Your task to perform on an android device: Open network settings Image 0: 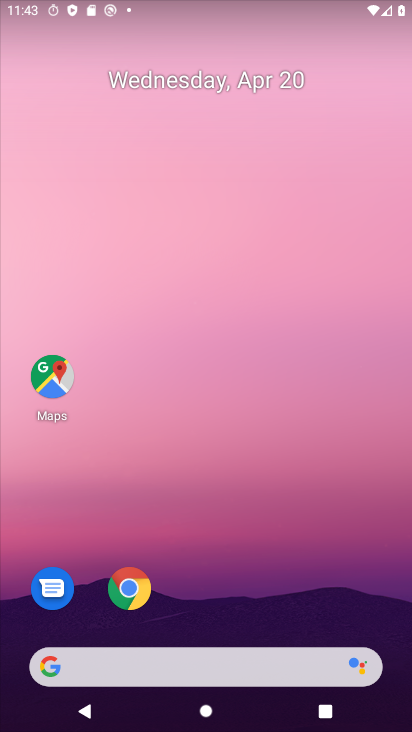
Step 0: drag from (222, 611) to (239, 43)
Your task to perform on an android device: Open network settings Image 1: 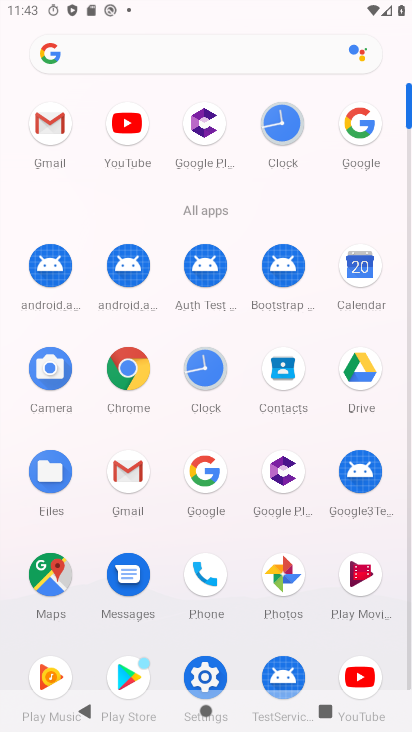
Step 1: click (206, 665)
Your task to perform on an android device: Open network settings Image 2: 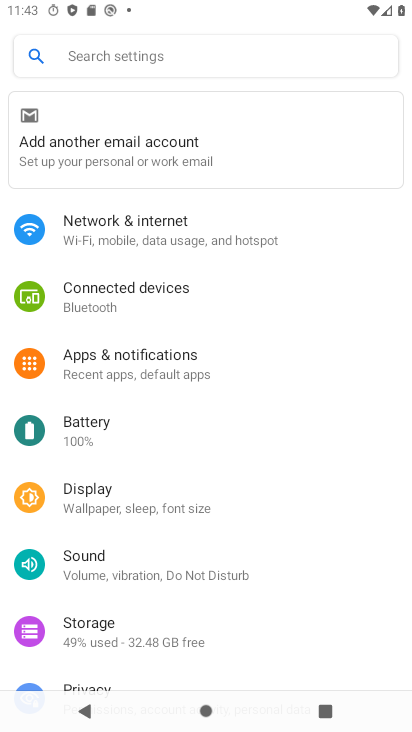
Step 2: click (191, 225)
Your task to perform on an android device: Open network settings Image 3: 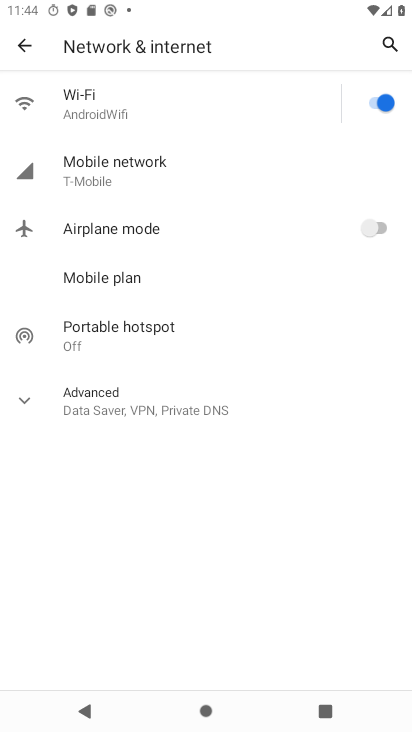
Step 3: click (24, 389)
Your task to perform on an android device: Open network settings Image 4: 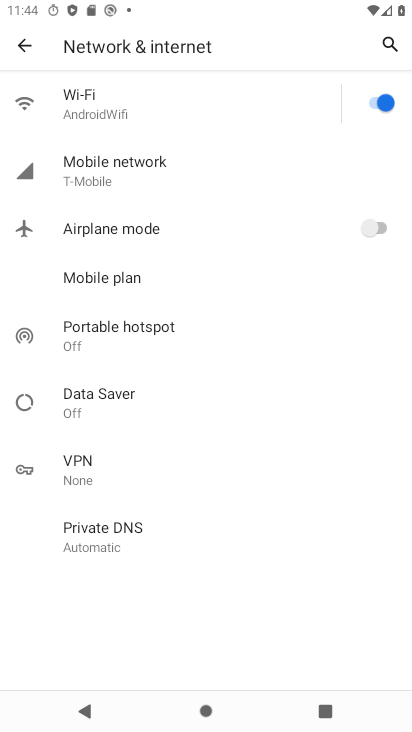
Step 4: task complete